Your task to perform on an android device: create a new album in the google photos Image 0: 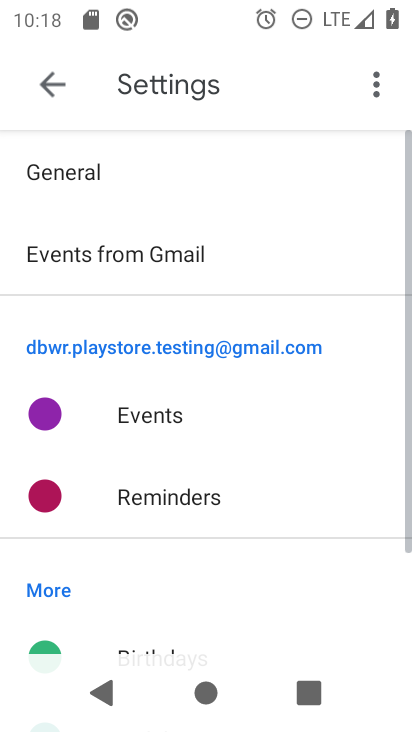
Step 0: click (252, 259)
Your task to perform on an android device: create a new album in the google photos Image 1: 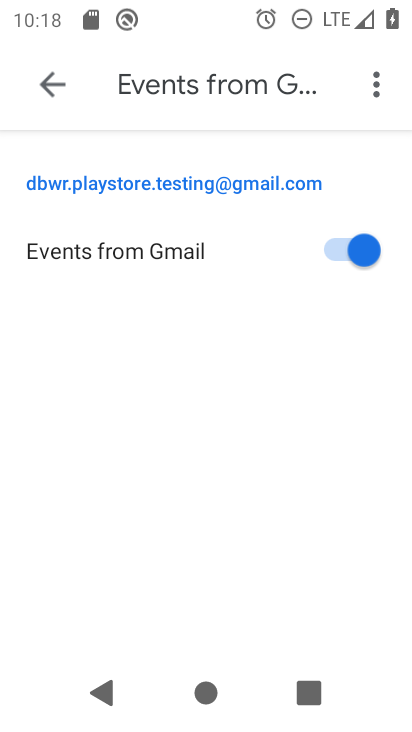
Step 1: press home button
Your task to perform on an android device: create a new album in the google photos Image 2: 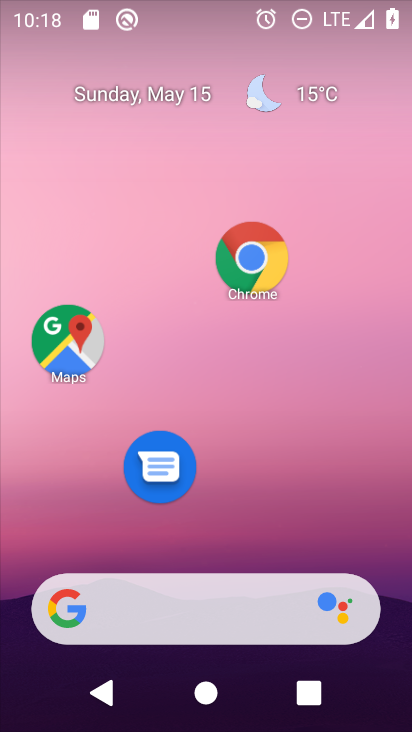
Step 2: drag from (233, 538) to (330, 7)
Your task to perform on an android device: create a new album in the google photos Image 3: 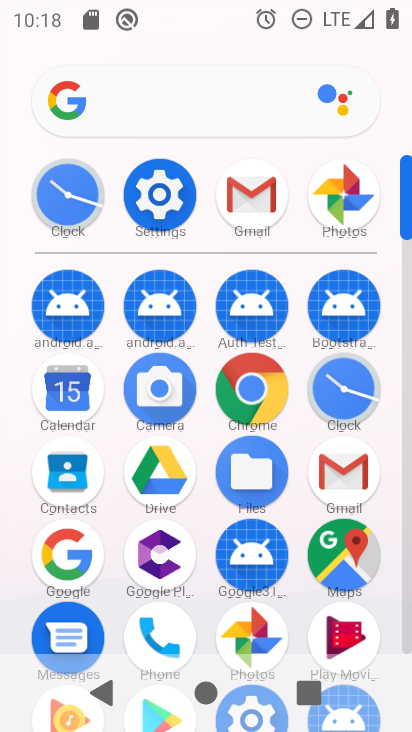
Step 3: click (335, 204)
Your task to perform on an android device: create a new album in the google photos Image 4: 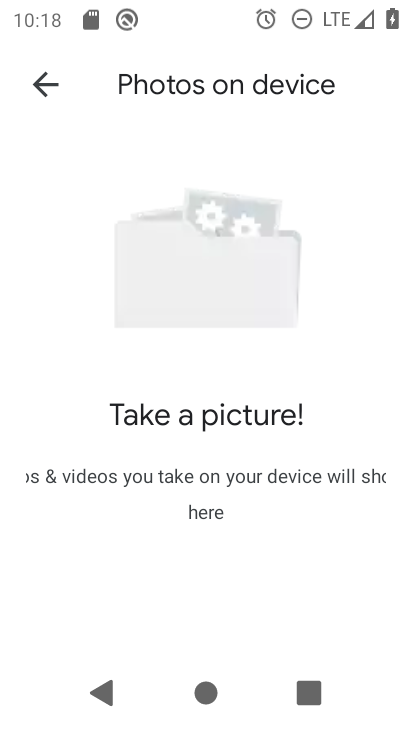
Step 4: click (57, 94)
Your task to perform on an android device: create a new album in the google photos Image 5: 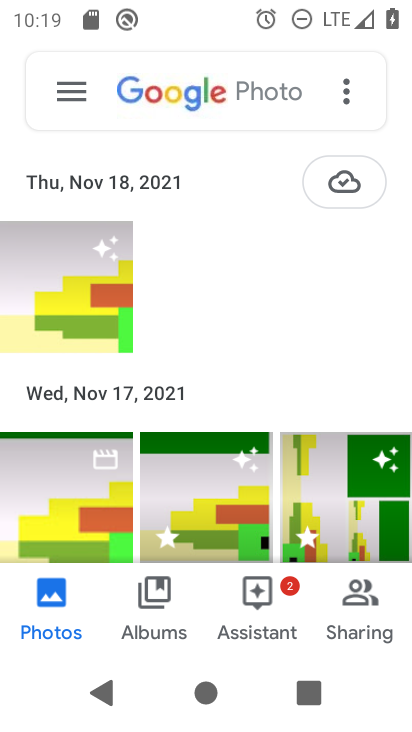
Step 5: click (126, 303)
Your task to perform on an android device: create a new album in the google photos Image 6: 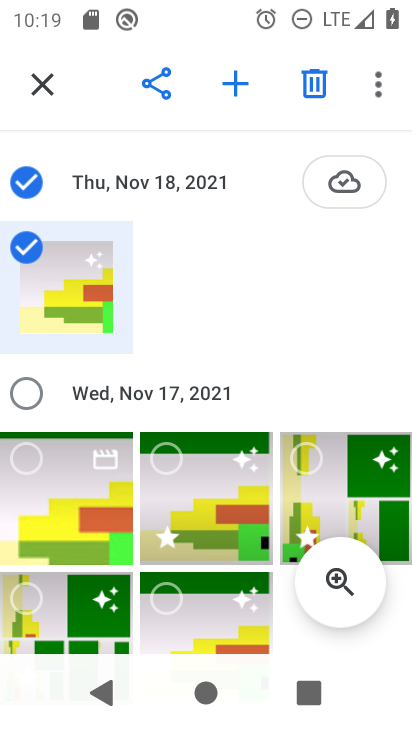
Step 6: click (61, 495)
Your task to perform on an android device: create a new album in the google photos Image 7: 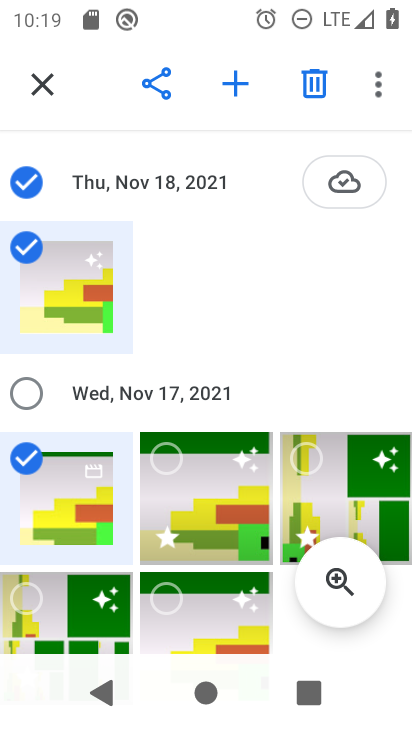
Step 7: click (185, 470)
Your task to perform on an android device: create a new album in the google photos Image 8: 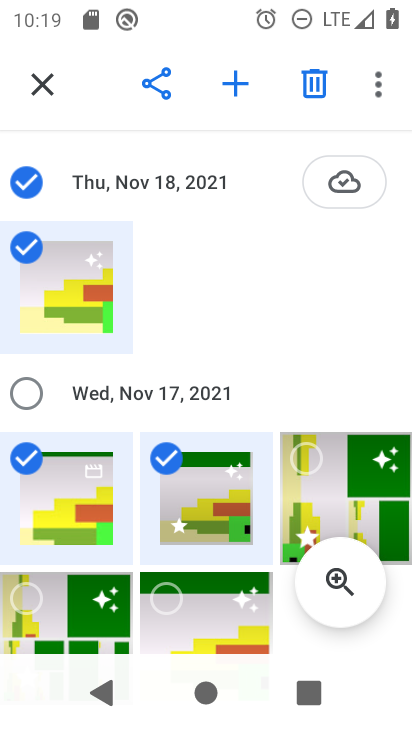
Step 8: click (245, 85)
Your task to perform on an android device: create a new album in the google photos Image 9: 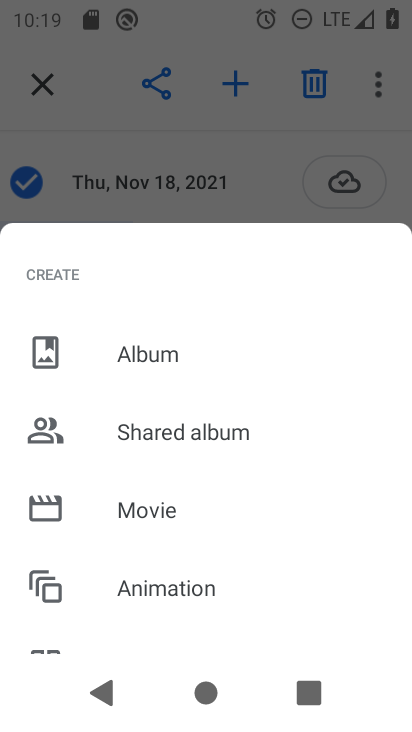
Step 9: click (135, 378)
Your task to perform on an android device: create a new album in the google photos Image 10: 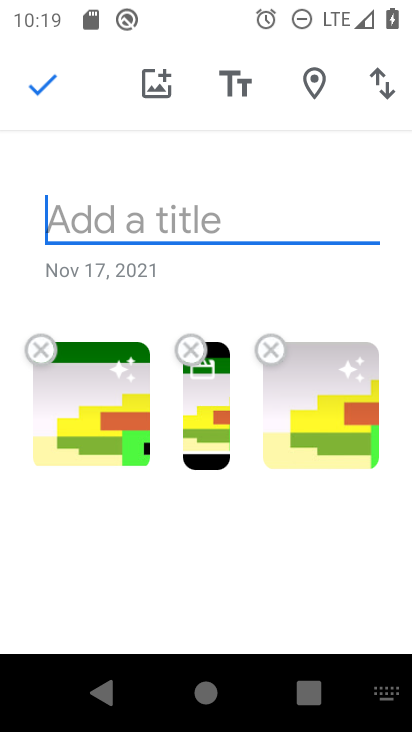
Step 10: type "f"
Your task to perform on an android device: create a new album in the google photos Image 11: 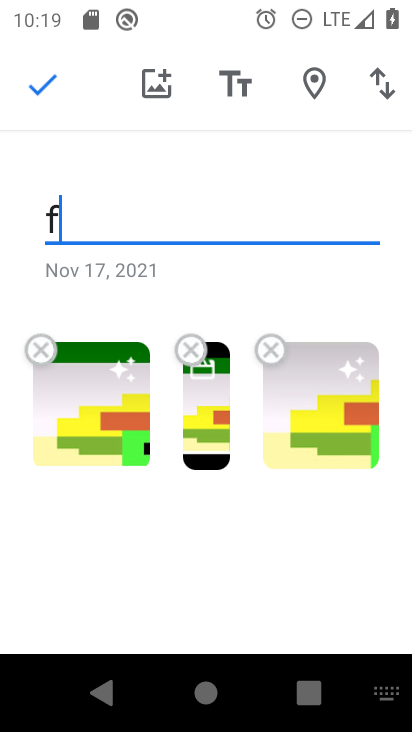
Step 11: click (51, 71)
Your task to perform on an android device: create a new album in the google photos Image 12: 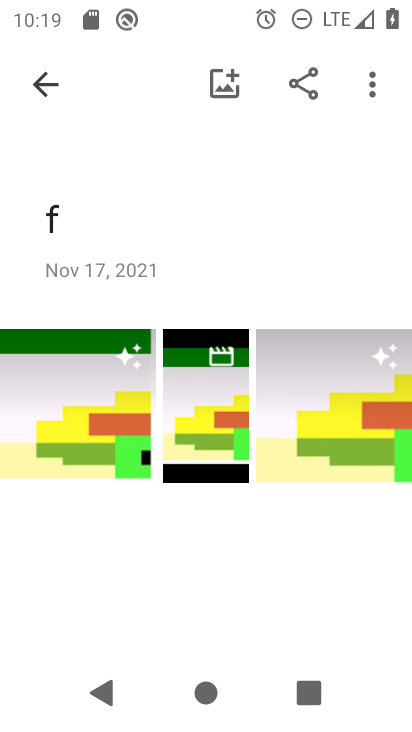
Step 12: task complete